Your task to perform on an android device: Open Google Image 0: 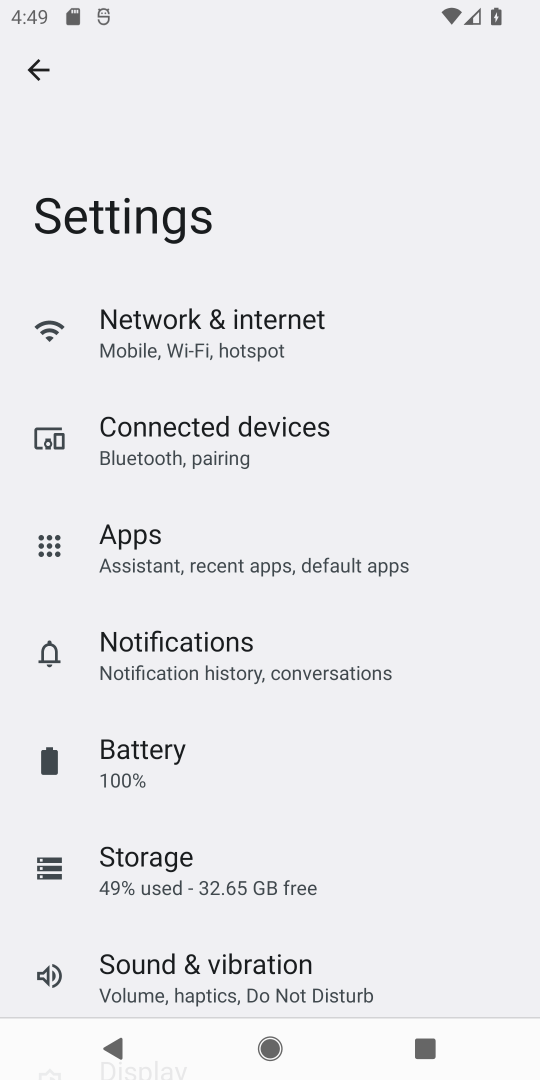
Step 0: press home button
Your task to perform on an android device: Open Google Image 1: 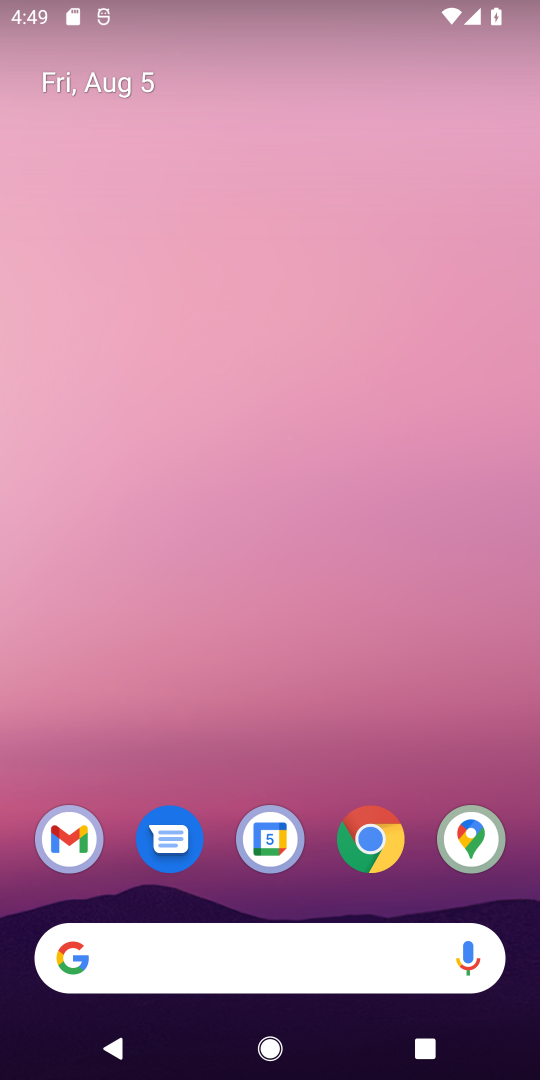
Step 1: drag from (234, 759) to (249, 176)
Your task to perform on an android device: Open Google Image 2: 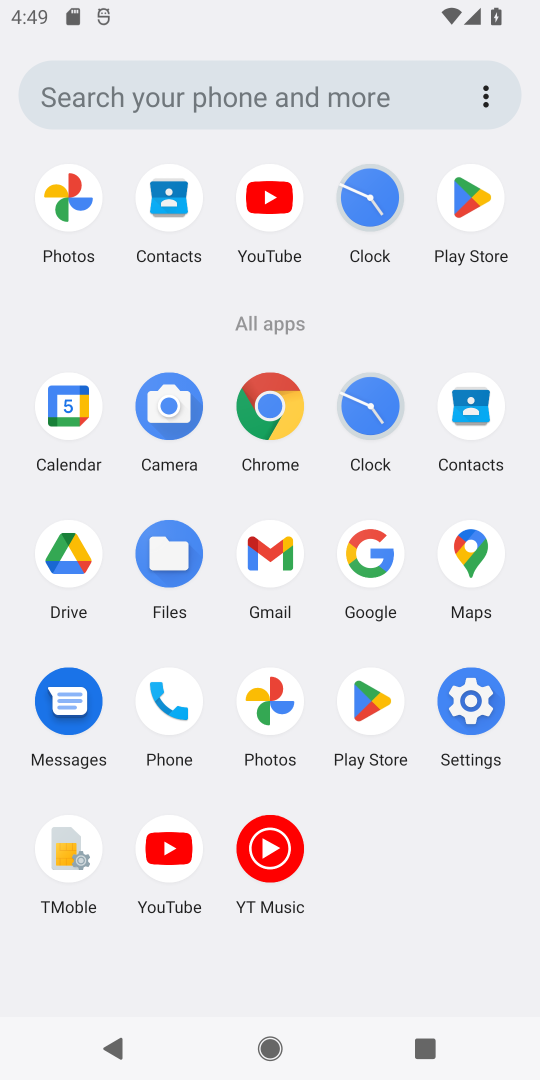
Step 2: click (356, 572)
Your task to perform on an android device: Open Google Image 3: 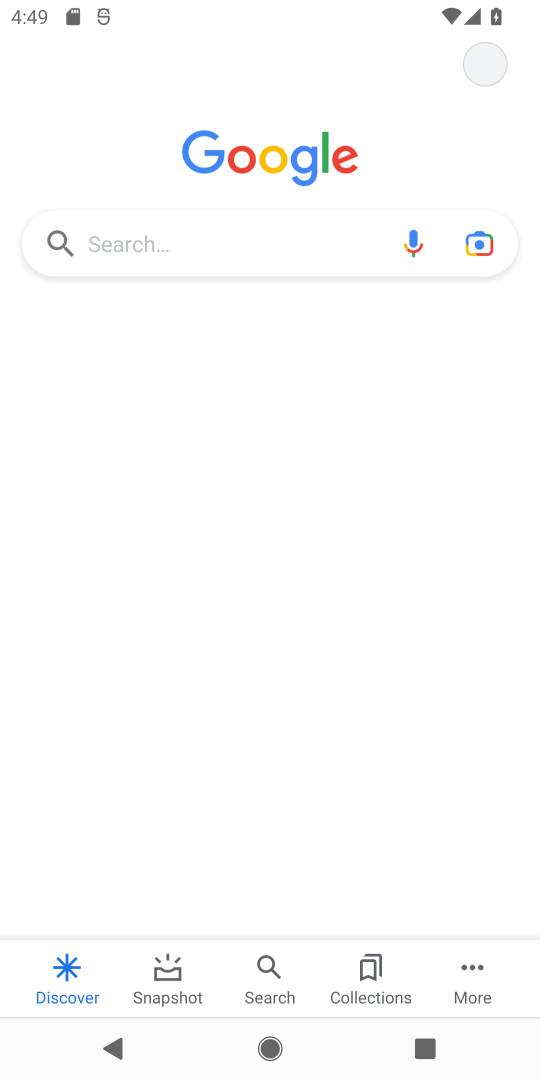
Step 3: task complete